Your task to perform on an android device: change your default location settings in chrome Image 0: 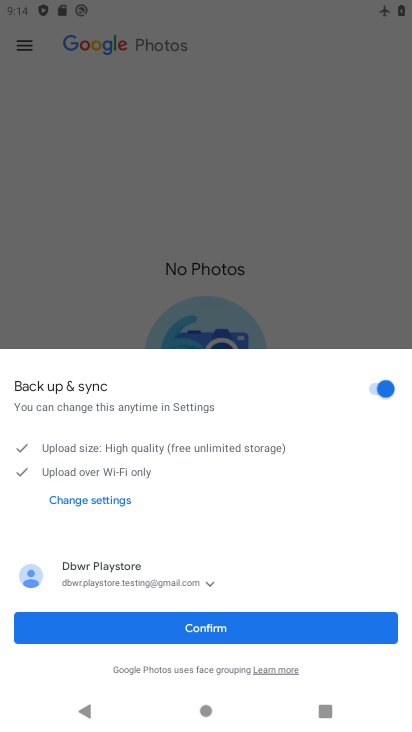
Step 0: press home button
Your task to perform on an android device: change your default location settings in chrome Image 1: 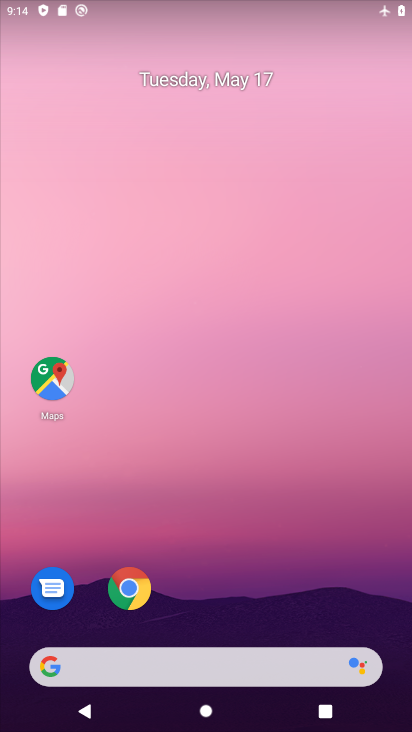
Step 1: click (133, 584)
Your task to perform on an android device: change your default location settings in chrome Image 2: 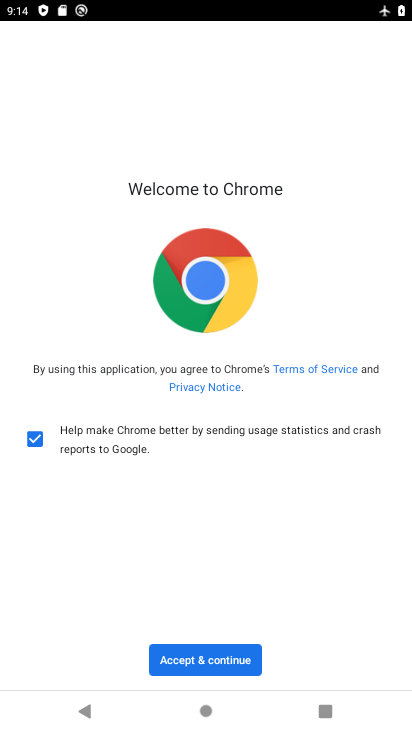
Step 2: click (209, 654)
Your task to perform on an android device: change your default location settings in chrome Image 3: 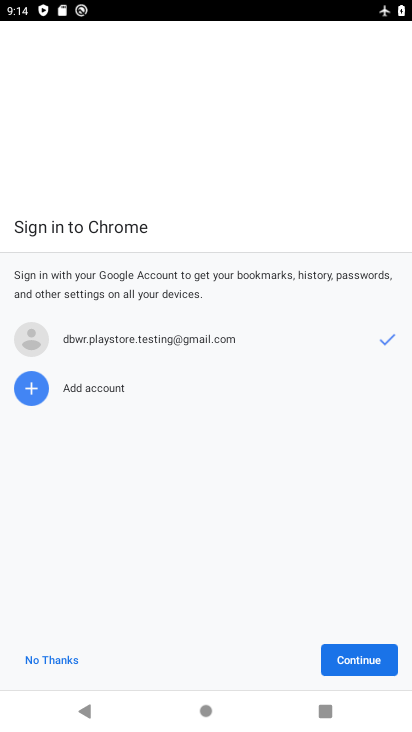
Step 3: click (369, 659)
Your task to perform on an android device: change your default location settings in chrome Image 4: 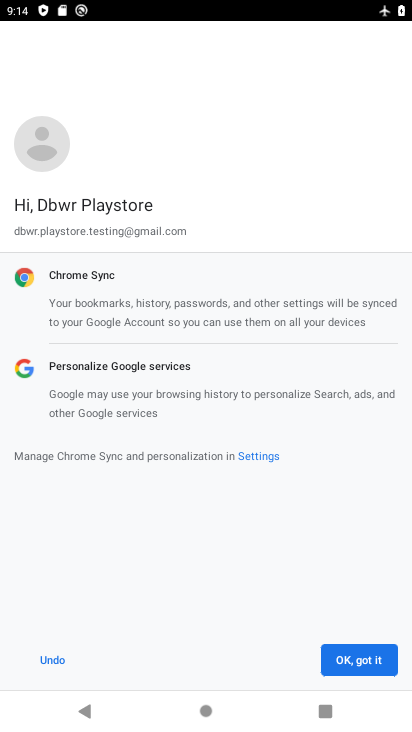
Step 4: click (369, 659)
Your task to perform on an android device: change your default location settings in chrome Image 5: 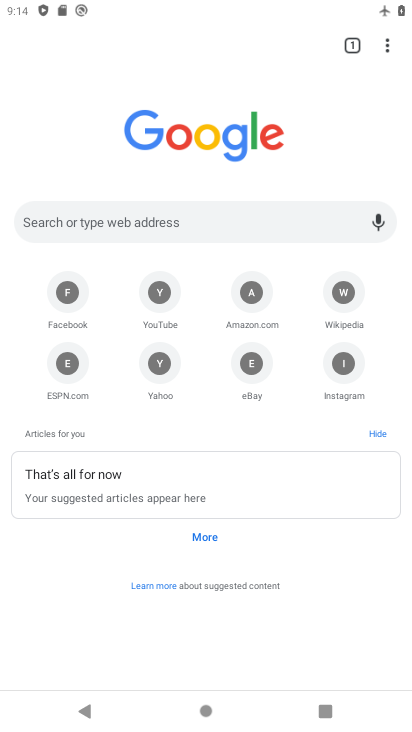
Step 5: click (387, 50)
Your task to perform on an android device: change your default location settings in chrome Image 6: 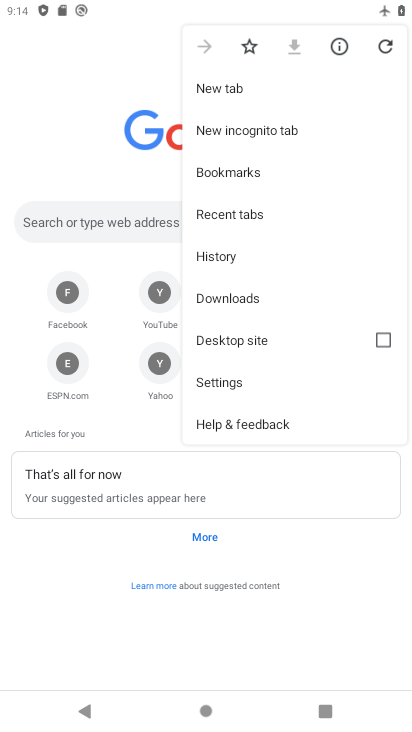
Step 6: click (221, 382)
Your task to perform on an android device: change your default location settings in chrome Image 7: 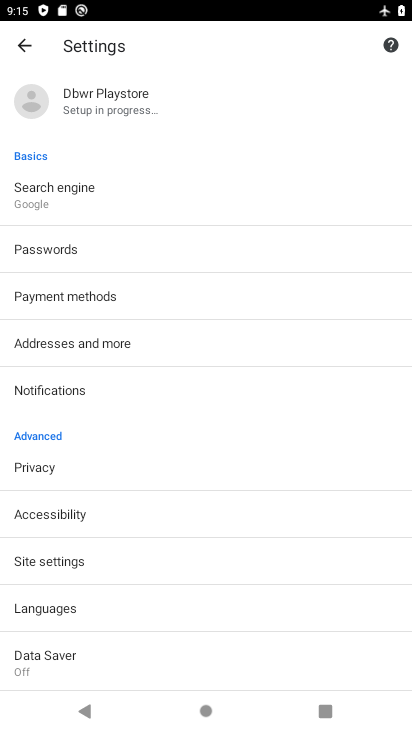
Step 7: click (54, 560)
Your task to perform on an android device: change your default location settings in chrome Image 8: 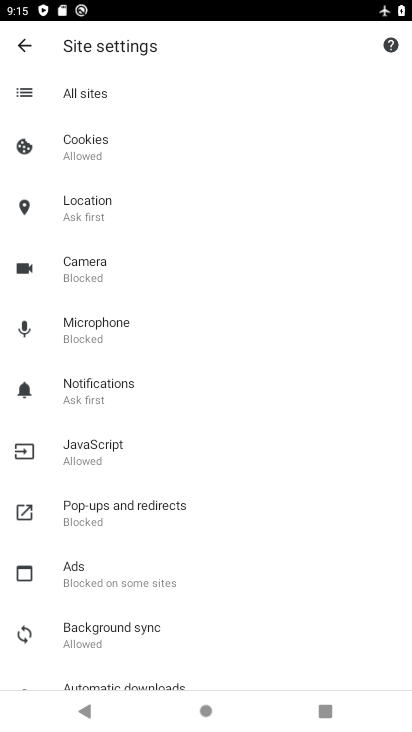
Step 8: click (90, 207)
Your task to perform on an android device: change your default location settings in chrome Image 9: 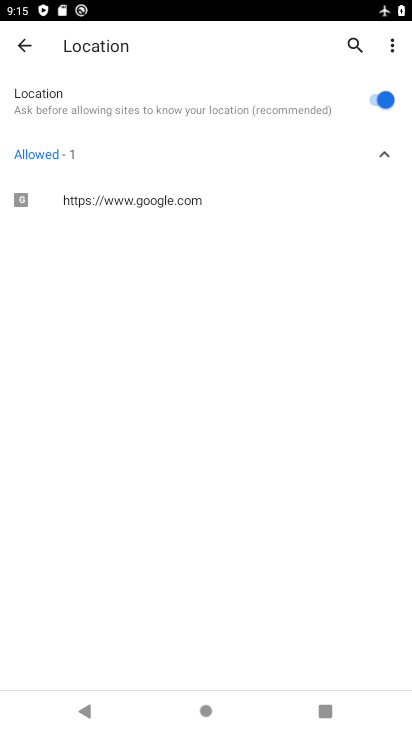
Step 9: click (375, 96)
Your task to perform on an android device: change your default location settings in chrome Image 10: 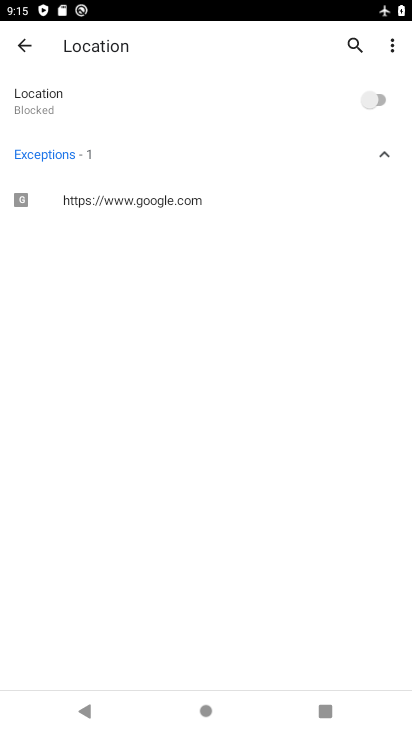
Step 10: task complete